Your task to perform on an android device: turn notification dots off Image 0: 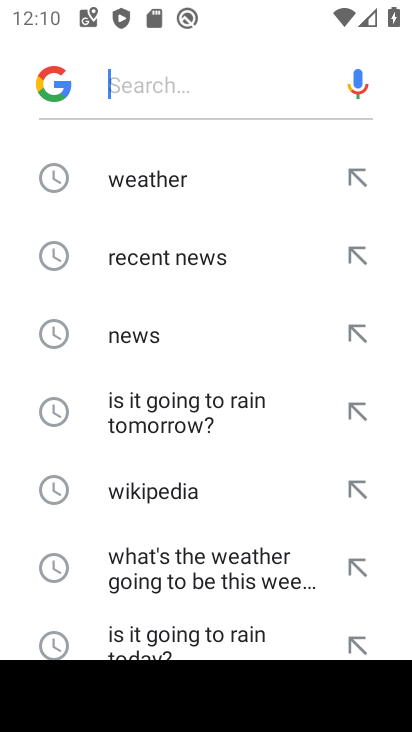
Step 0: press home button
Your task to perform on an android device: turn notification dots off Image 1: 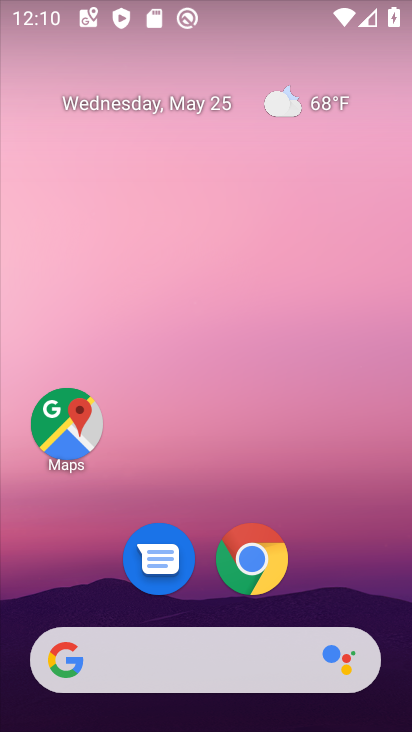
Step 1: drag from (403, 624) to (257, 137)
Your task to perform on an android device: turn notification dots off Image 2: 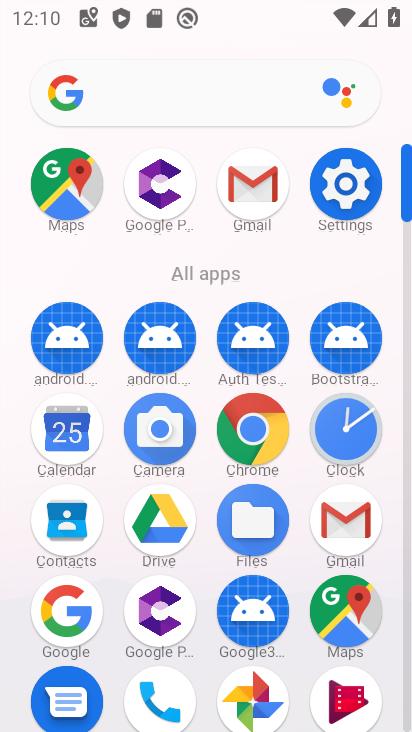
Step 2: click (409, 701)
Your task to perform on an android device: turn notification dots off Image 3: 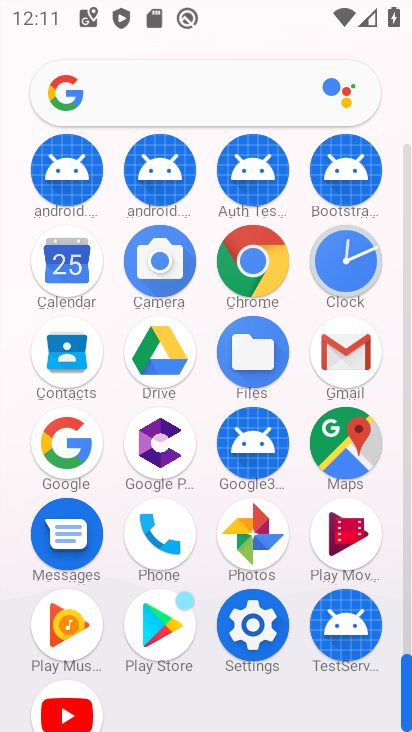
Step 3: click (250, 624)
Your task to perform on an android device: turn notification dots off Image 4: 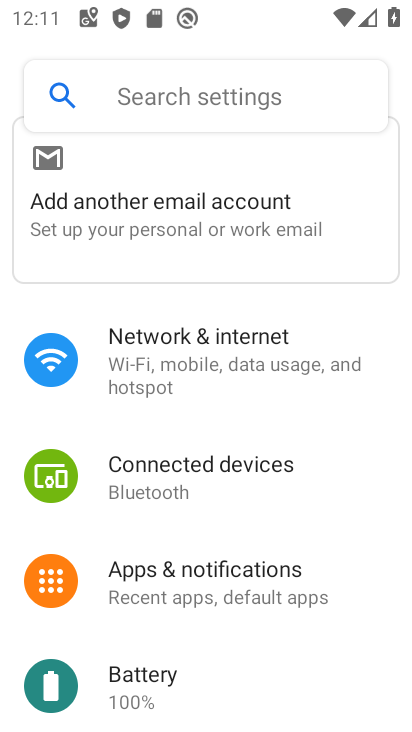
Step 4: click (210, 583)
Your task to perform on an android device: turn notification dots off Image 5: 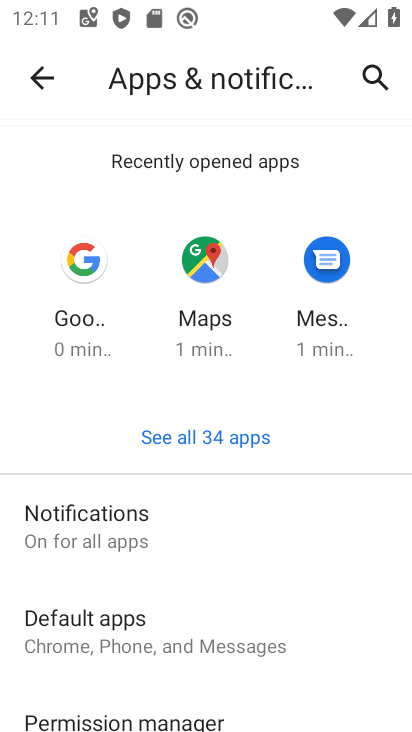
Step 5: drag from (293, 668) to (289, 415)
Your task to perform on an android device: turn notification dots off Image 6: 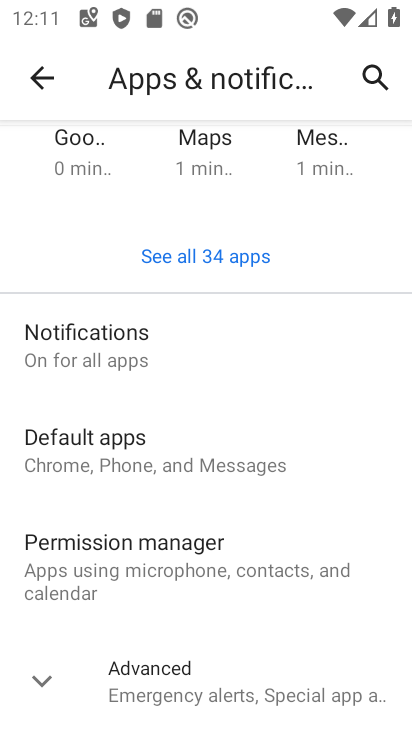
Step 6: click (71, 336)
Your task to perform on an android device: turn notification dots off Image 7: 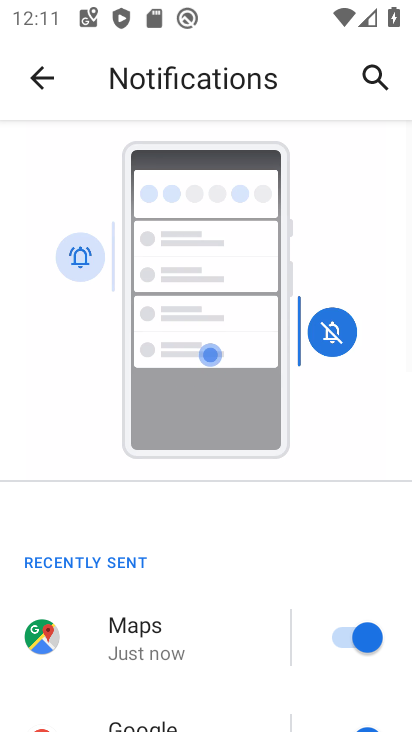
Step 7: click (258, 171)
Your task to perform on an android device: turn notification dots off Image 8: 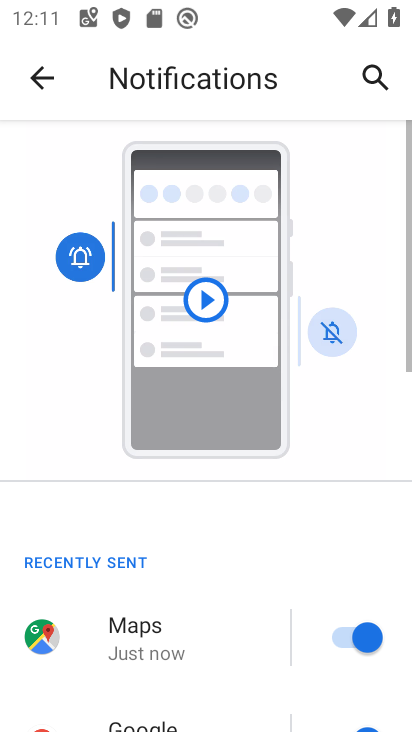
Step 8: drag from (277, 661) to (263, 188)
Your task to perform on an android device: turn notification dots off Image 9: 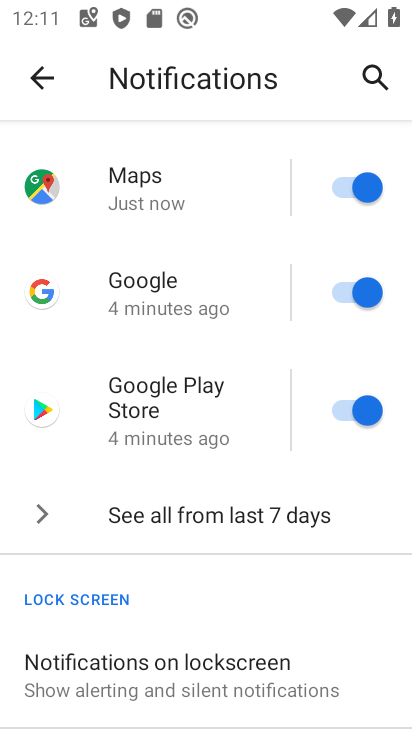
Step 9: drag from (280, 608) to (260, 195)
Your task to perform on an android device: turn notification dots off Image 10: 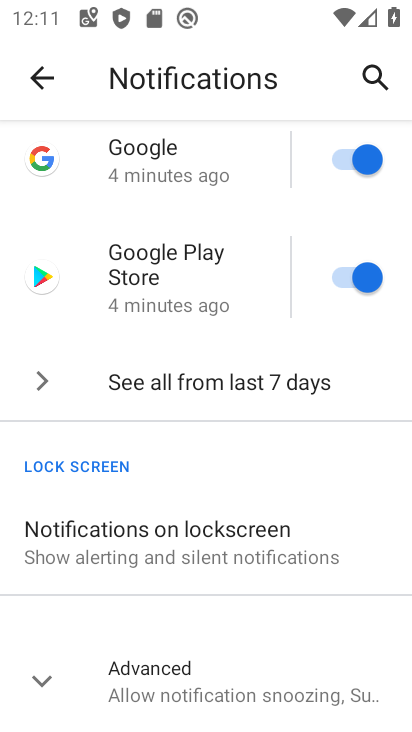
Step 10: click (41, 683)
Your task to perform on an android device: turn notification dots off Image 11: 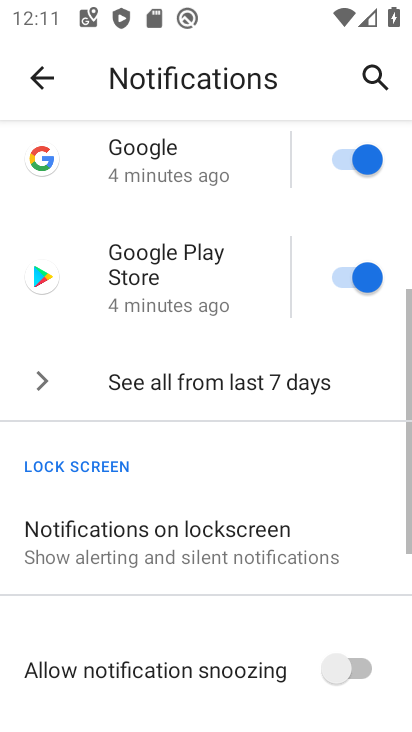
Step 11: drag from (254, 691) to (262, 205)
Your task to perform on an android device: turn notification dots off Image 12: 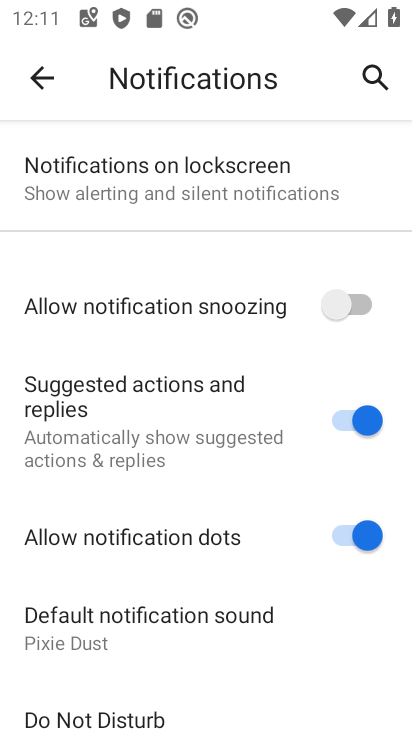
Step 12: click (340, 540)
Your task to perform on an android device: turn notification dots off Image 13: 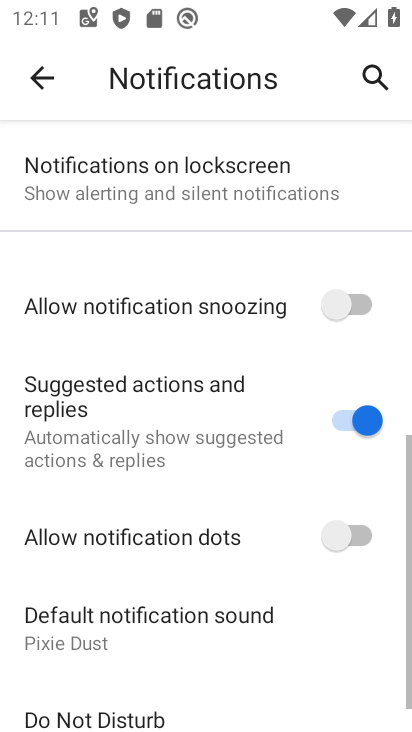
Step 13: task complete